Your task to perform on an android device: Add "razer blade" to the cart on walmart, then select checkout. Image 0: 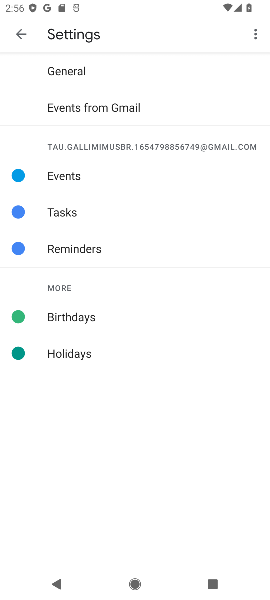
Step 0: press home button
Your task to perform on an android device: Add "razer blade" to the cart on walmart, then select checkout. Image 1: 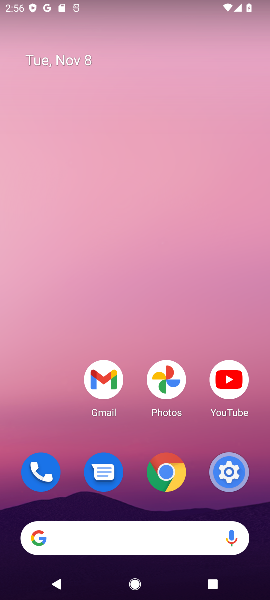
Step 1: click (140, 556)
Your task to perform on an android device: Add "razer blade" to the cart on walmart, then select checkout. Image 2: 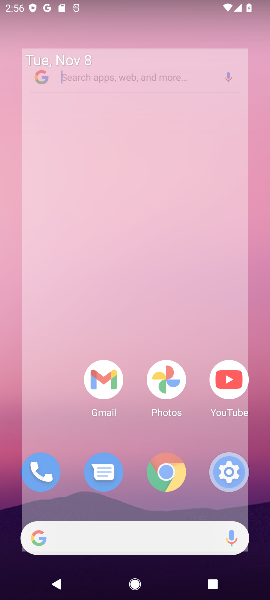
Step 2: click (147, 548)
Your task to perform on an android device: Add "razer blade" to the cart on walmart, then select checkout. Image 3: 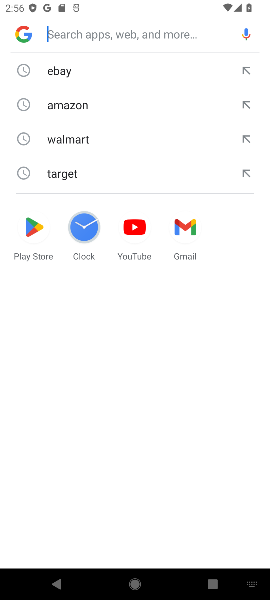
Step 3: click (109, 143)
Your task to perform on an android device: Add "razer blade" to the cart on walmart, then select checkout. Image 4: 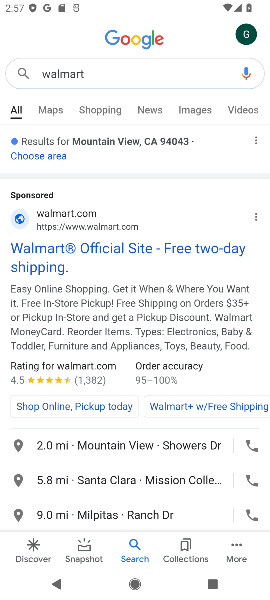
Step 4: click (82, 249)
Your task to perform on an android device: Add "razer blade" to the cart on walmart, then select checkout. Image 5: 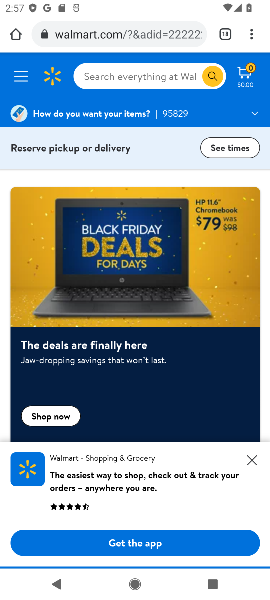
Step 5: click (161, 68)
Your task to perform on an android device: Add "razer blade" to the cart on walmart, then select checkout. Image 6: 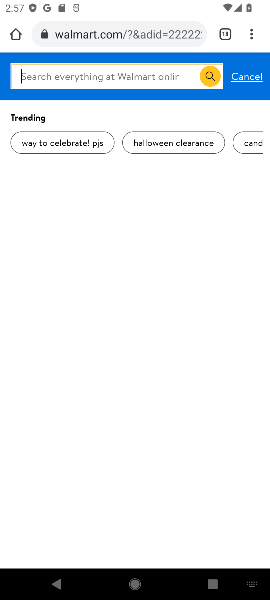
Step 6: type "razer blade"
Your task to perform on an android device: Add "razer blade" to the cart on walmart, then select checkout. Image 7: 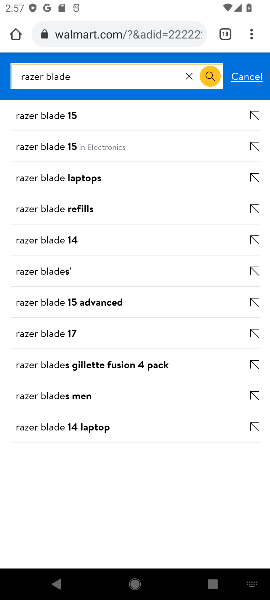
Step 7: click (184, 120)
Your task to perform on an android device: Add "razer blade" to the cart on walmart, then select checkout. Image 8: 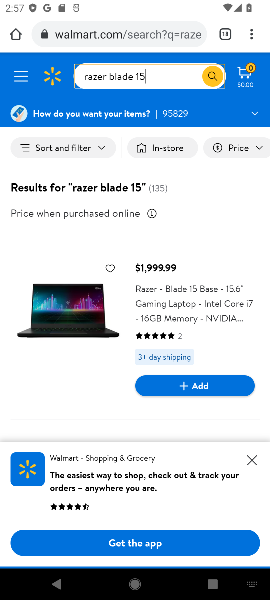
Step 8: click (249, 458)
Your task to perform on an android device: Add "razer blade" to the cart on walmart, then select checkout. Image 9: 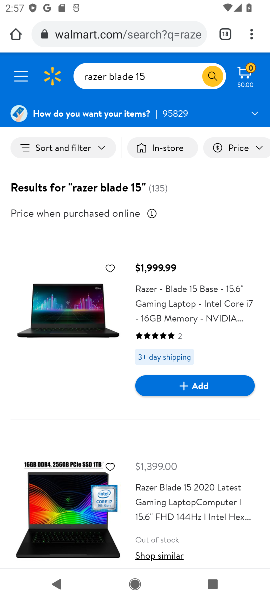
Step 9: click (227, 381)
Your task to perform on an android device: Add "razer blade" to the cart on walmart, then select checkout. Image 10: 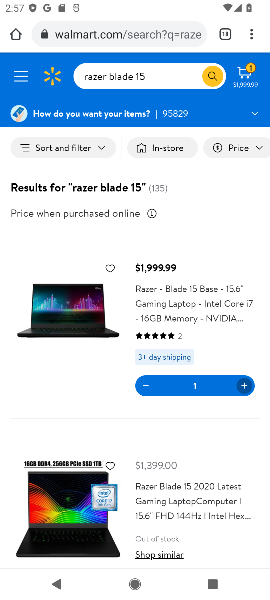
Step 10: task complete